Your task to perform on an android device: Do I have any events tomorrow? Image 0: 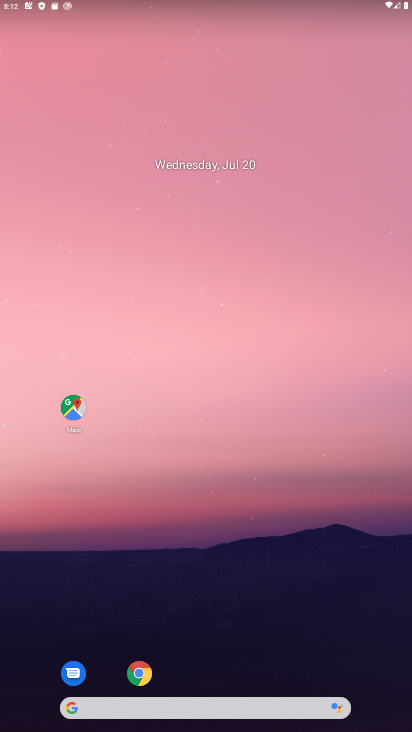
Step 0: drag from (192, 672) to (194, 12)
Your task to perform on an android device: Do I have any events tomorrow? Image 1: 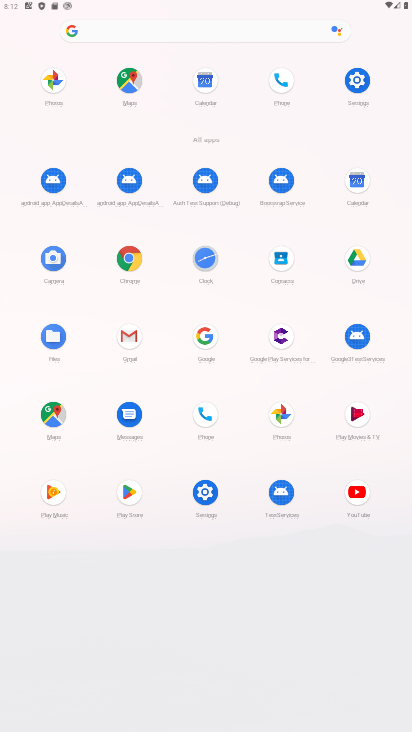
Step 1: click (352, 186)
Your task to perform on an android device: Do I have any events tomorrow? Image 2: 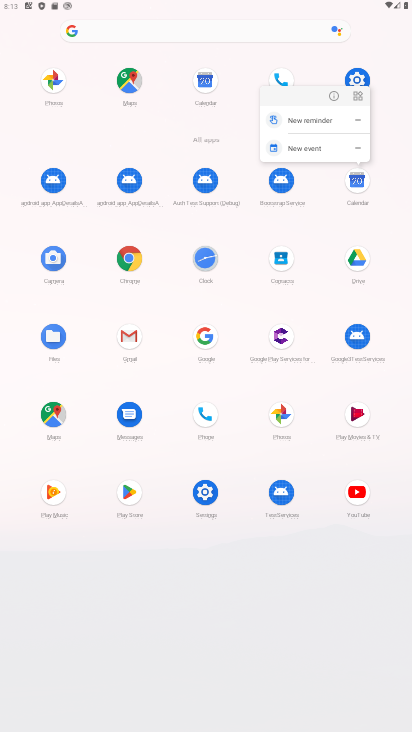
Step 2: click (339, 90)
Your task to perform on an android device: Do I have any events tomorrow? Image 3: 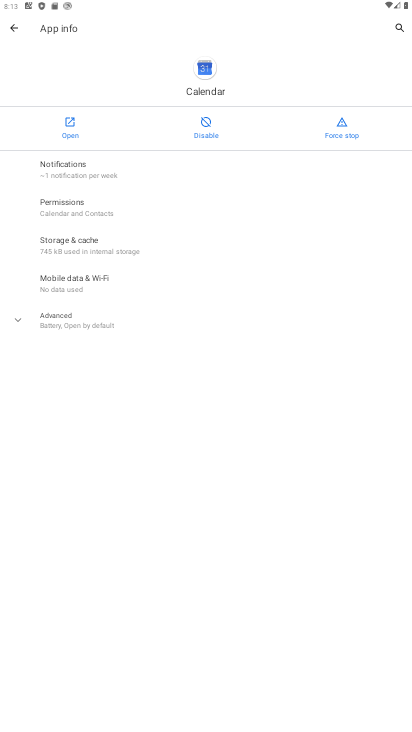
Step 3: click (60, 132)
Your task to perform on an android device: Do I have any events tomorrow? Image 4: 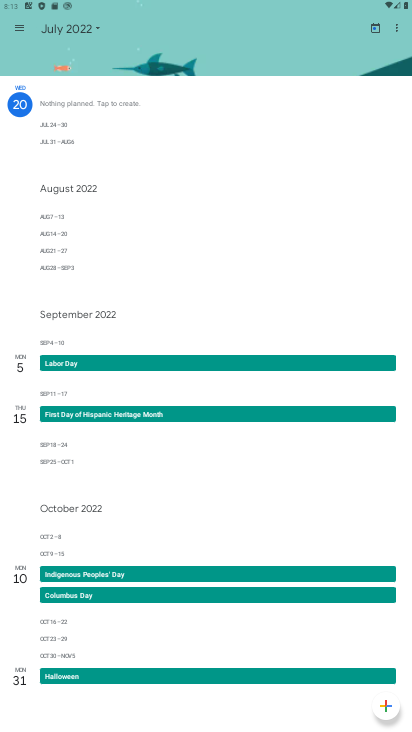
Step 4: click (380, 27)
Your task to perform on an android device: Do I have any events tomorrow? Image 5: 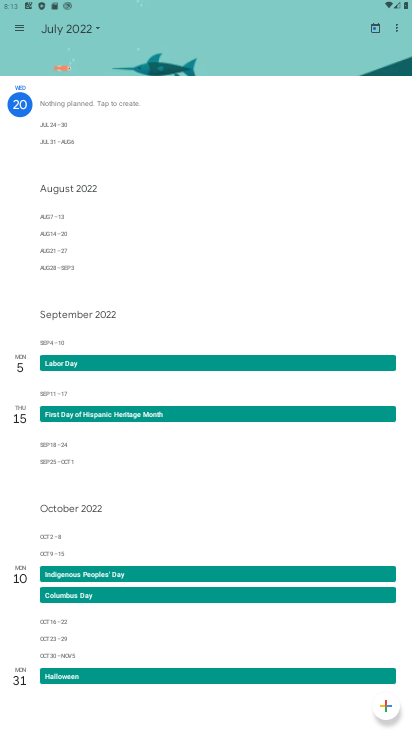
Step 5: click (374, 24)
Your task to perform on an android device: Do I have any events tomorrow? Image 6: 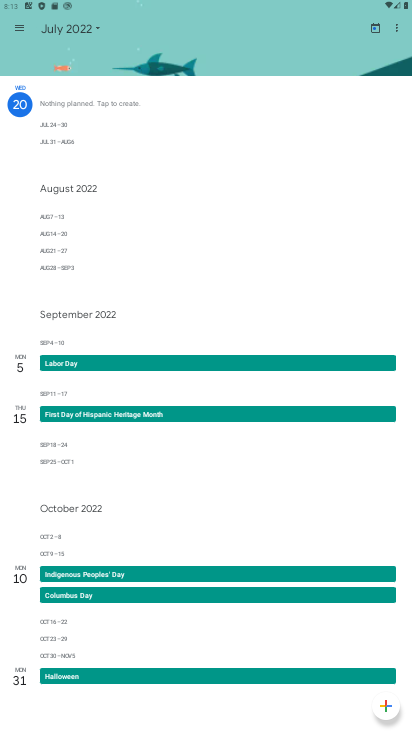
Step 6: click (75, 27)
Your task to perform on an android device: Do I have any events tomorrow? Image 7: 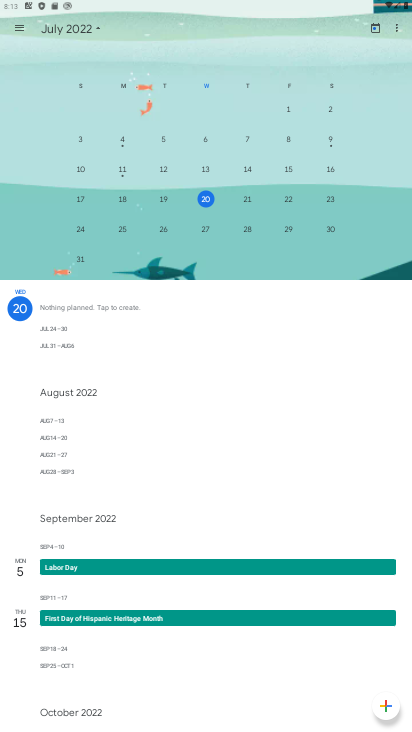
Step 7: click (243, 196)
Your task to perform on an android device: Do I have any events tomorrow? Image 8: 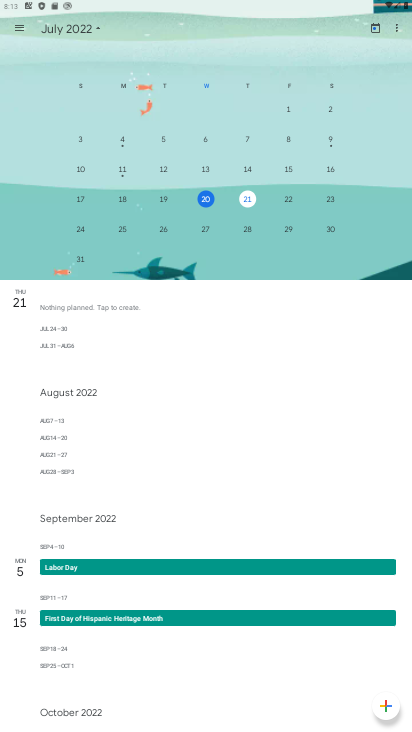
Step 8: task complete